Your task to perform on an android device: delete the emails in spam in the gmail app Image 0: 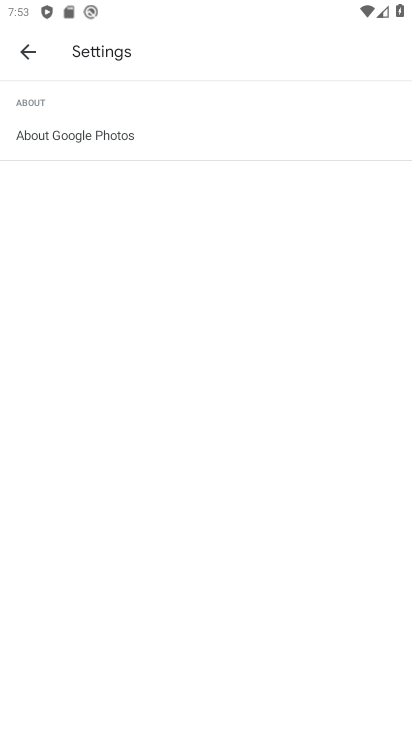
Step 0: press home button
Your task to perform on an android device: delete the emails in spam in the gmail app Image 1: 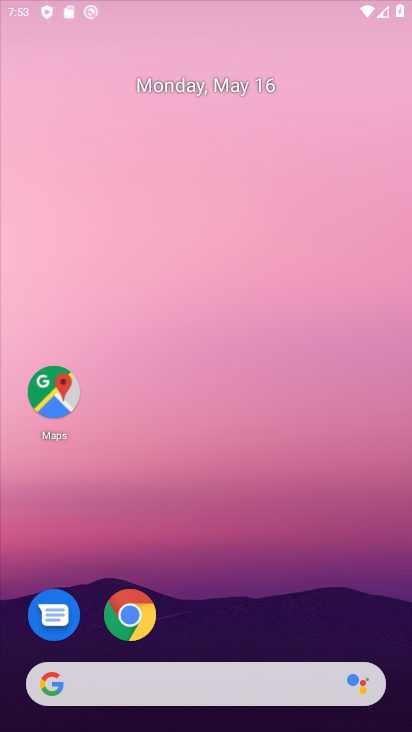
Step 1: drag from (208, 684) to (305, 209)
Your task to perform on an android device: delete the emails in spam in the gmail app Image 2: 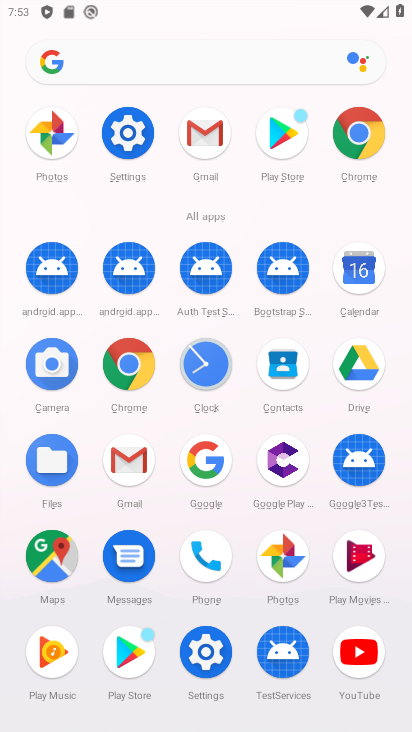
Step 2: click (128, 469)
Your task to perform on an android device: delete the emails in spam in the gmail app Image 3: 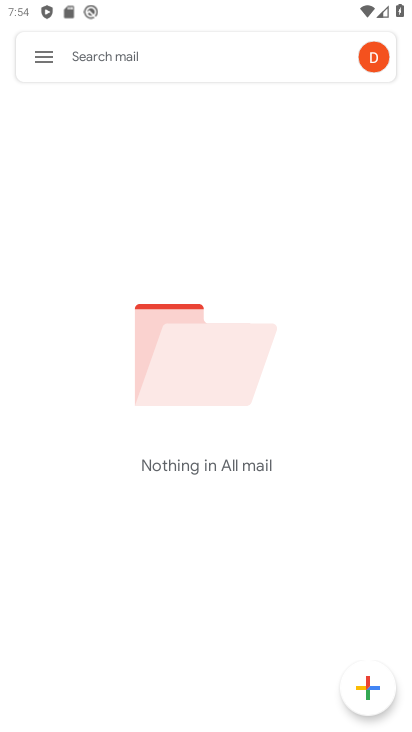
Step 3: click (36, 60)
Your task to perform on an android device: delete the emails in spam in the gmail app Image 4: 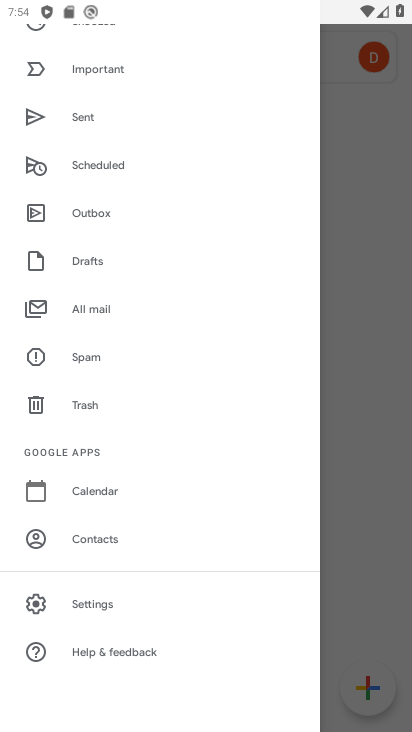
Step 4: click (114, 375)
Your task to perform on an android device: delete the emails in spam in the gmail app Image 5: 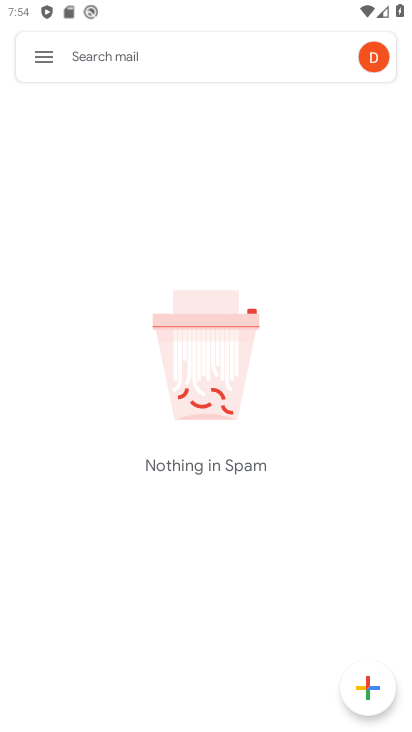
Step 5: task complete